Your task to perform on an android device: uninstall "Adobe Acrobat Reader" Image 0: 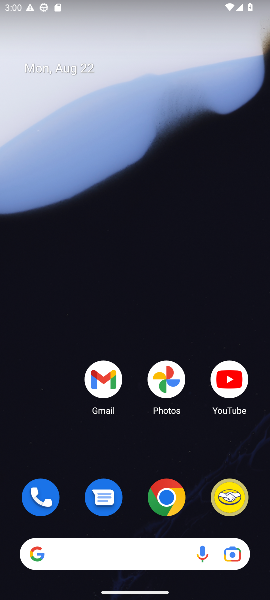
Step 0: drag from (139, 412) to (133, 100)
Your task to perform on an android device: uninstall "Adobe Acrobat Reader" Image 1: 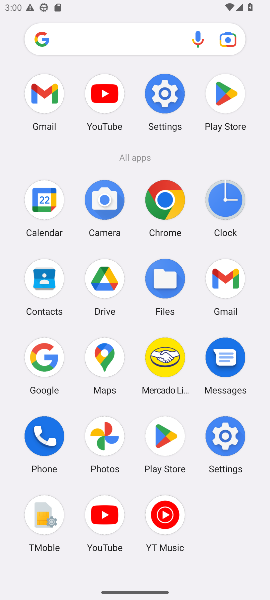
Step 1: click (215, 98)
Your task to perform on an android device: uninstall "Adobe Acrobat Reader" Image 2: 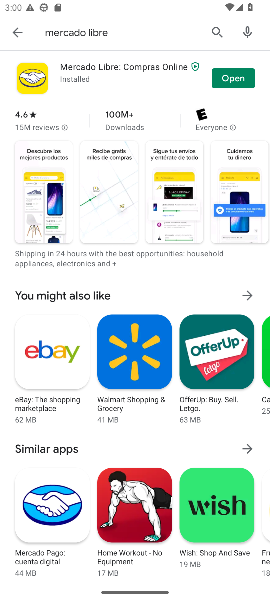
Step 2: click (221, 24)
Your task to perform on an android device: uninstall "Adobe Acrobat Reader" Image 3: 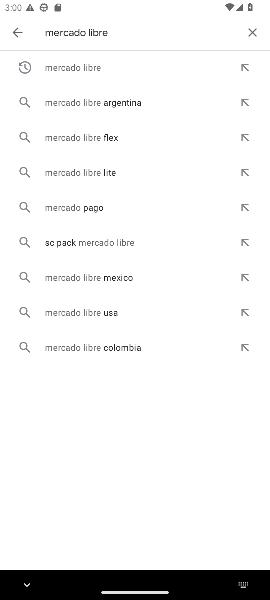
Step 3: click (247, 34)
Your task to perform on an android device: uninstall "Adobe Acrobat Reader" Image 4: 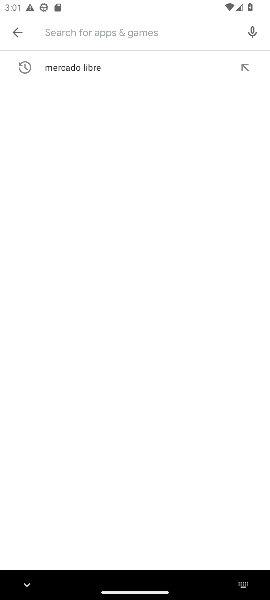
Step 4: type "Adobe Acrobat Reader"
Your task to perform on an android device: uninstall "Adobe Acrobat Reader" Image 5: 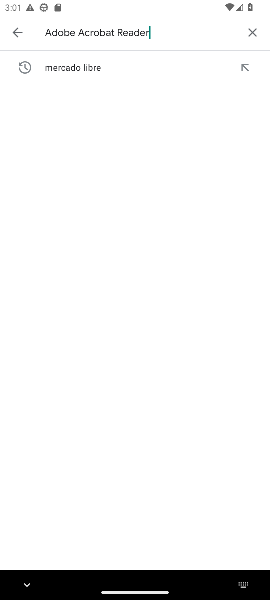
Step 5: type ""
Your task to perform on an android device: uninstall "Adobe Acrobat Reader" Image 6: 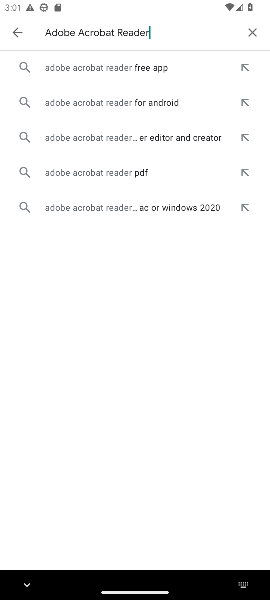
Step 6: click (163, 102)
Your task to perform on an android device: uninstall "Adobe Acrobat Reader" Image 7: 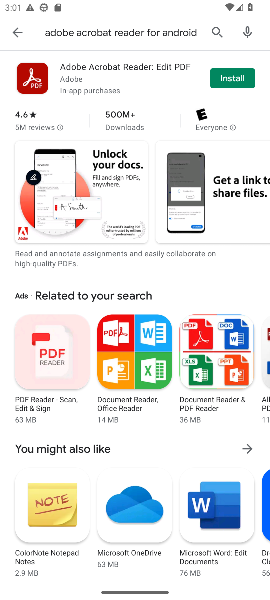
Step 7: click (131, 84)
Your task to perform on an android device: uninstall "Adobe Acrobat Reader" Image 8: 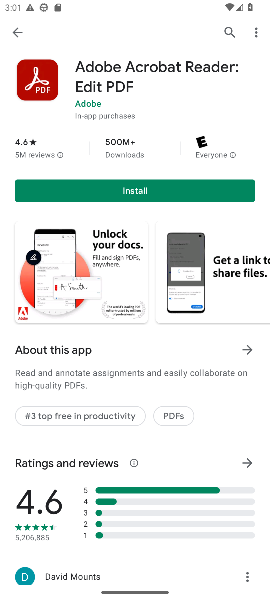
Step 8: task complete